Your task to perform on an android device: turn off wifi Image 0: 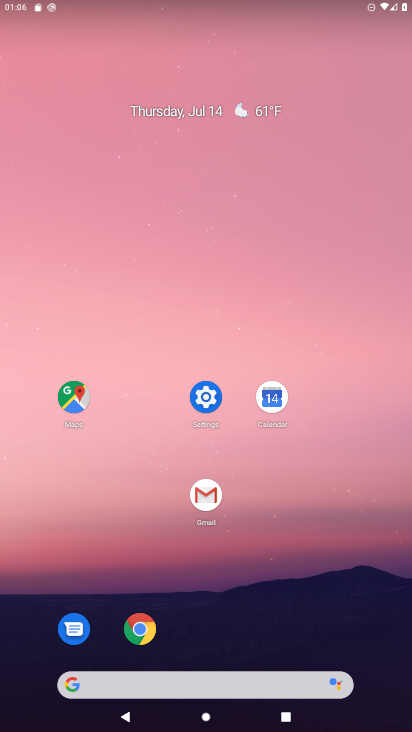
Step 0: click (204, 393)
Your task to perform on an android device: turn off wifi Image 1: 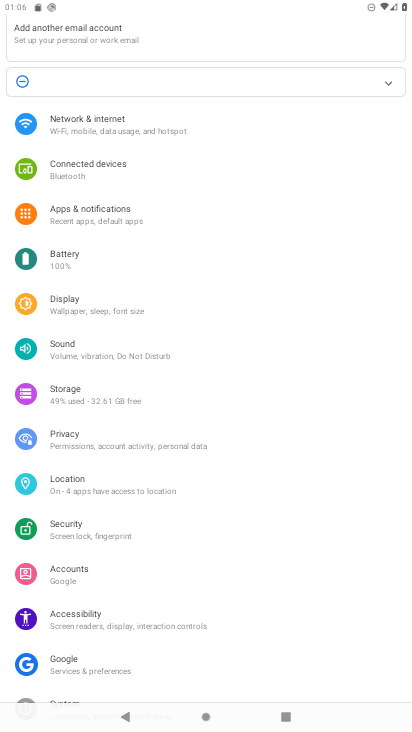
Step 1: click (92, 114)
Your task to perform on an android device: turn off wifi Image 2: 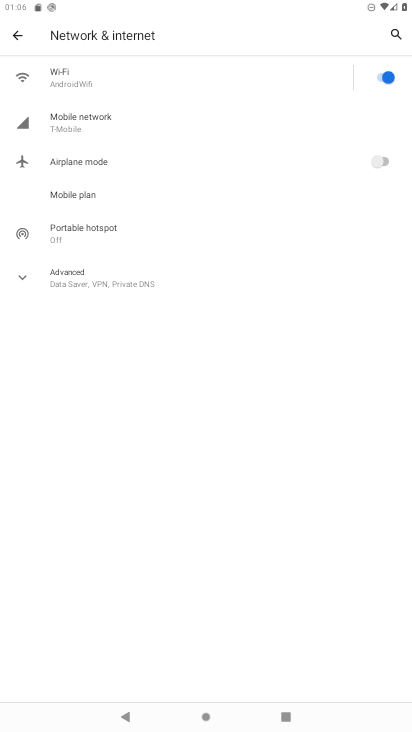
Step 2: click (387, 77)
Your task to perform on an android device: turn off wifi Image 3: 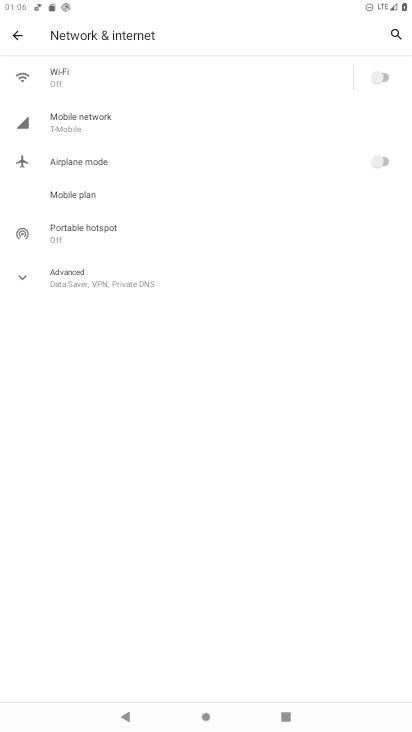
Step 3: task complete